Your task to perform on an android device: Is it going to rain tomorrow? Image 0: 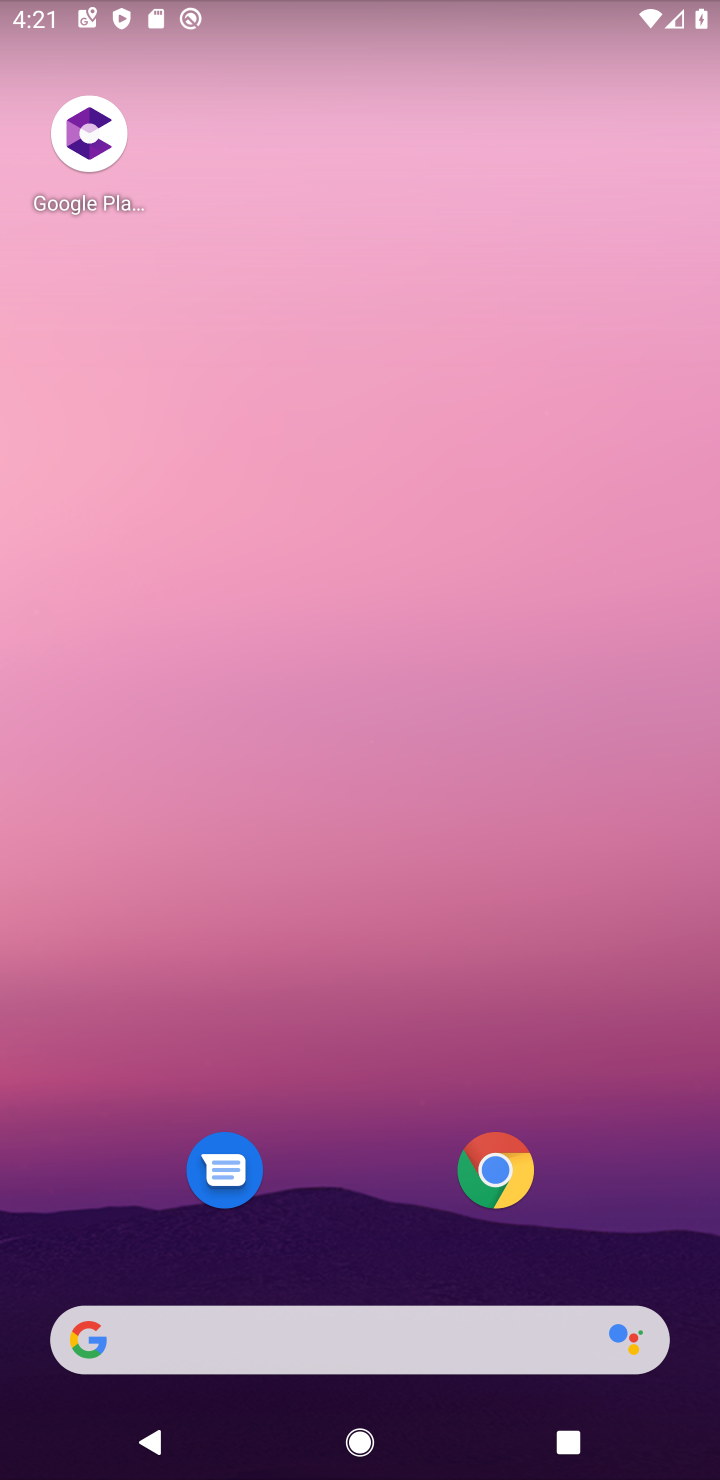
Step 0: drag from (284, 536) to (637, 1317)
Your task to perform on an android device: Is it going to rain tomorrow? Image 1: 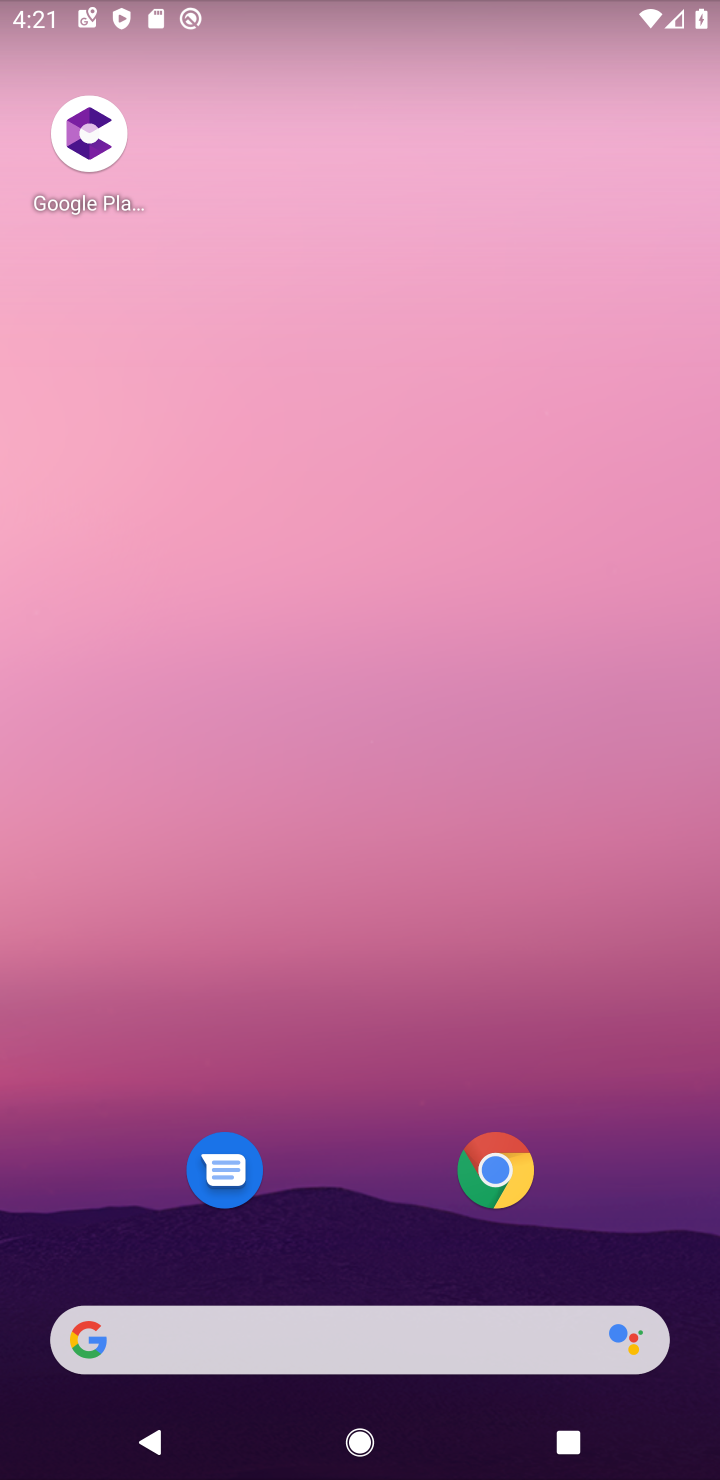
Step 1: click (363, 1339)
Your task to perform on an android device: Is it going to rain tomorrow? Image 2: 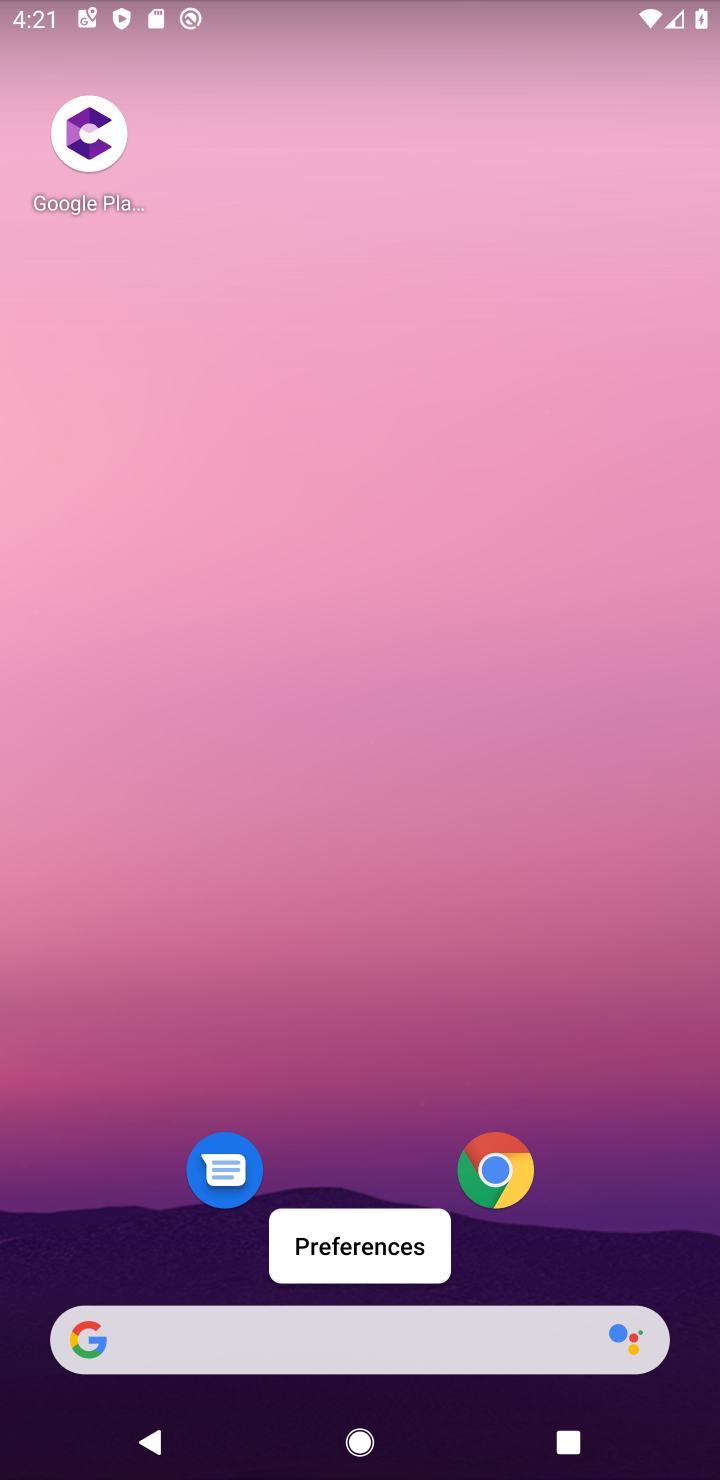
Step 2: click (301, 1376)
Your task to perform on an android device: Is it going to rain tomorrow? Image 3: 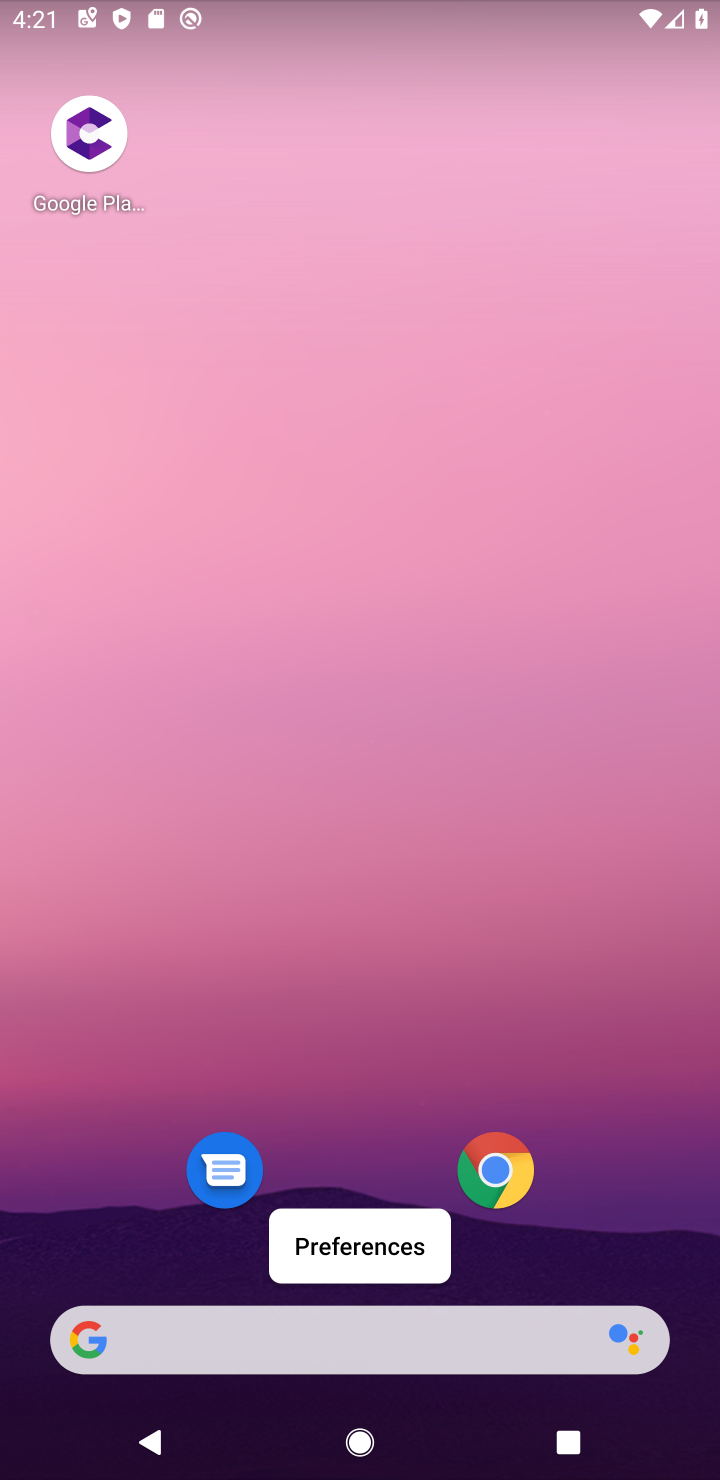
Step 3: click (297, 1345)
Your task to perform on an android device: Is it going to rain tomorrow? Image 4: 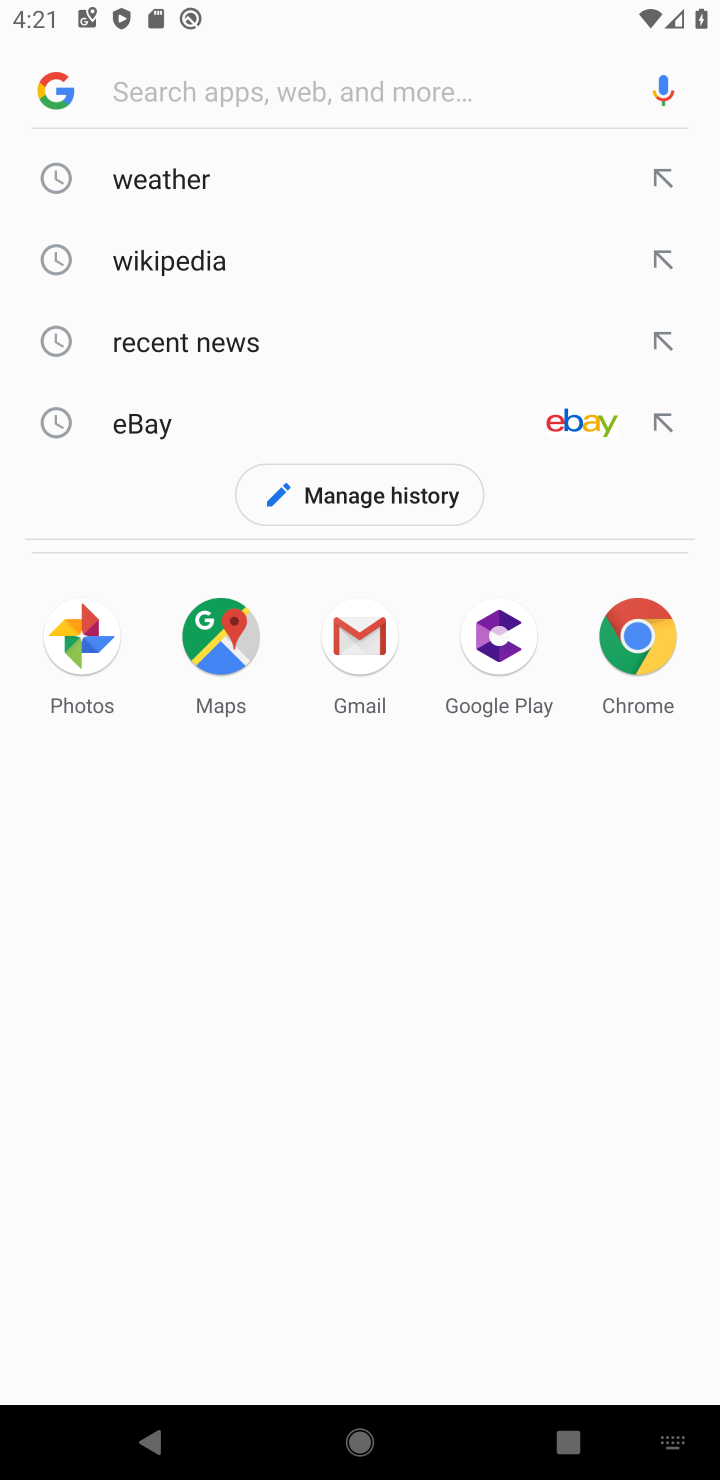
Step 4: click (225, 194)
Your task to perform on an android device: Is it going to rain tomorrow? Image 5: 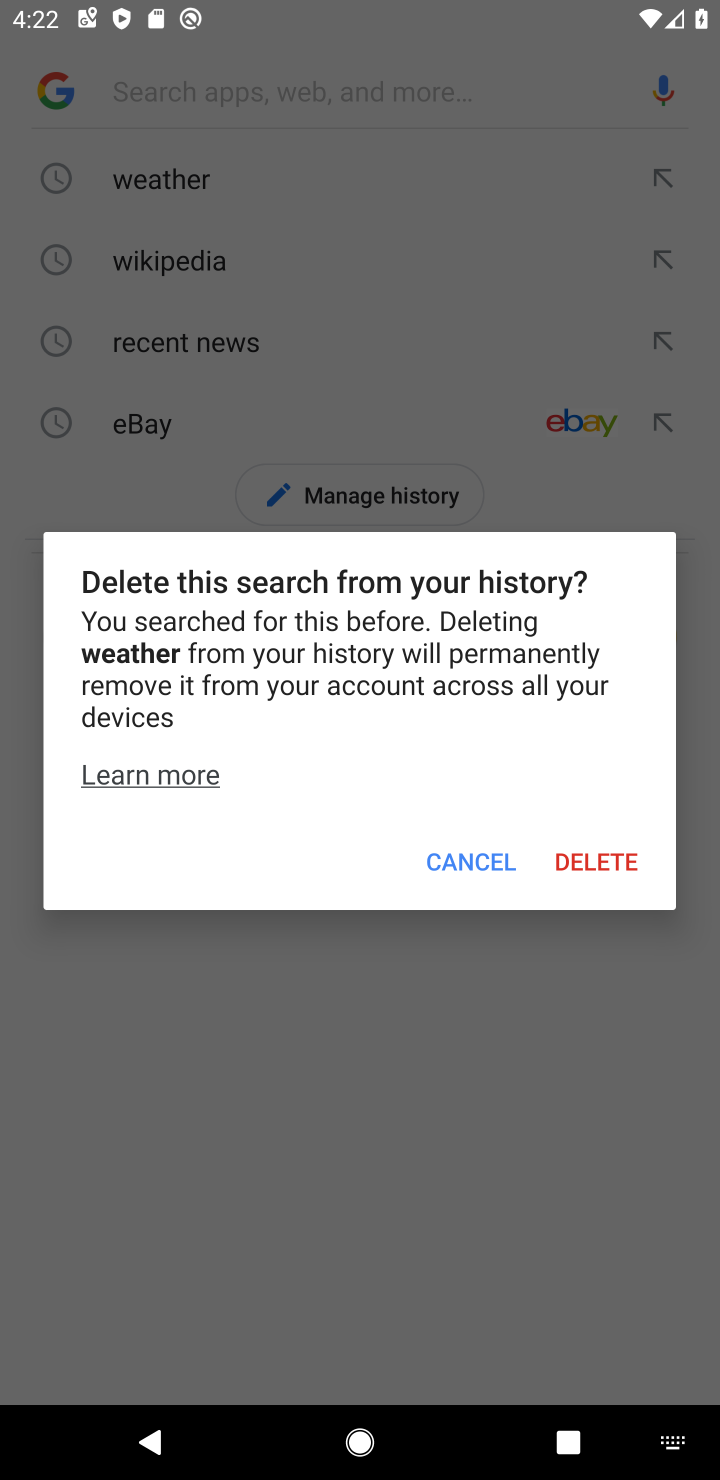
Step 5: click (495, 852)
Your task to perform on an android device: Is it going to rain tomorrow? Image 6: 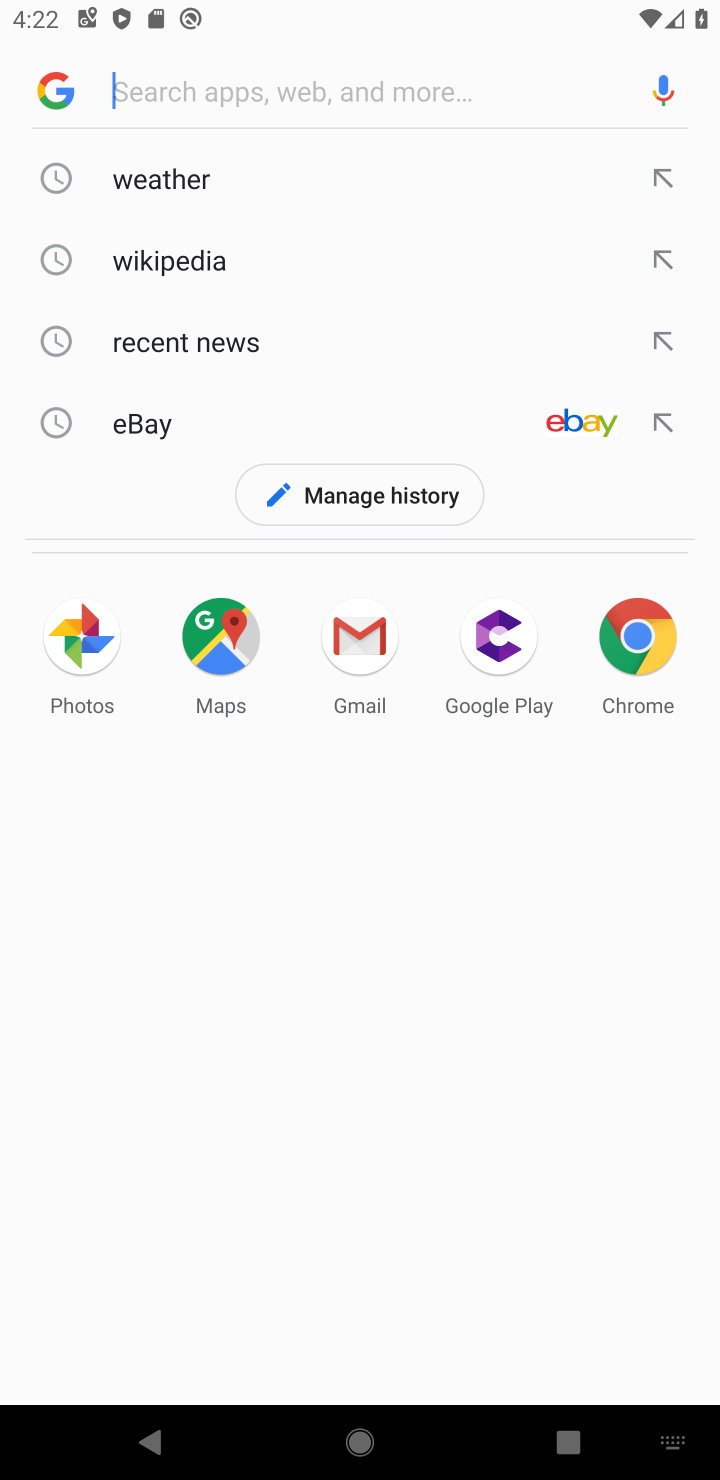
Step 6: click (186, 170)
Your task to perform on an android device: Is it going to rain tomorrow? Image 7: 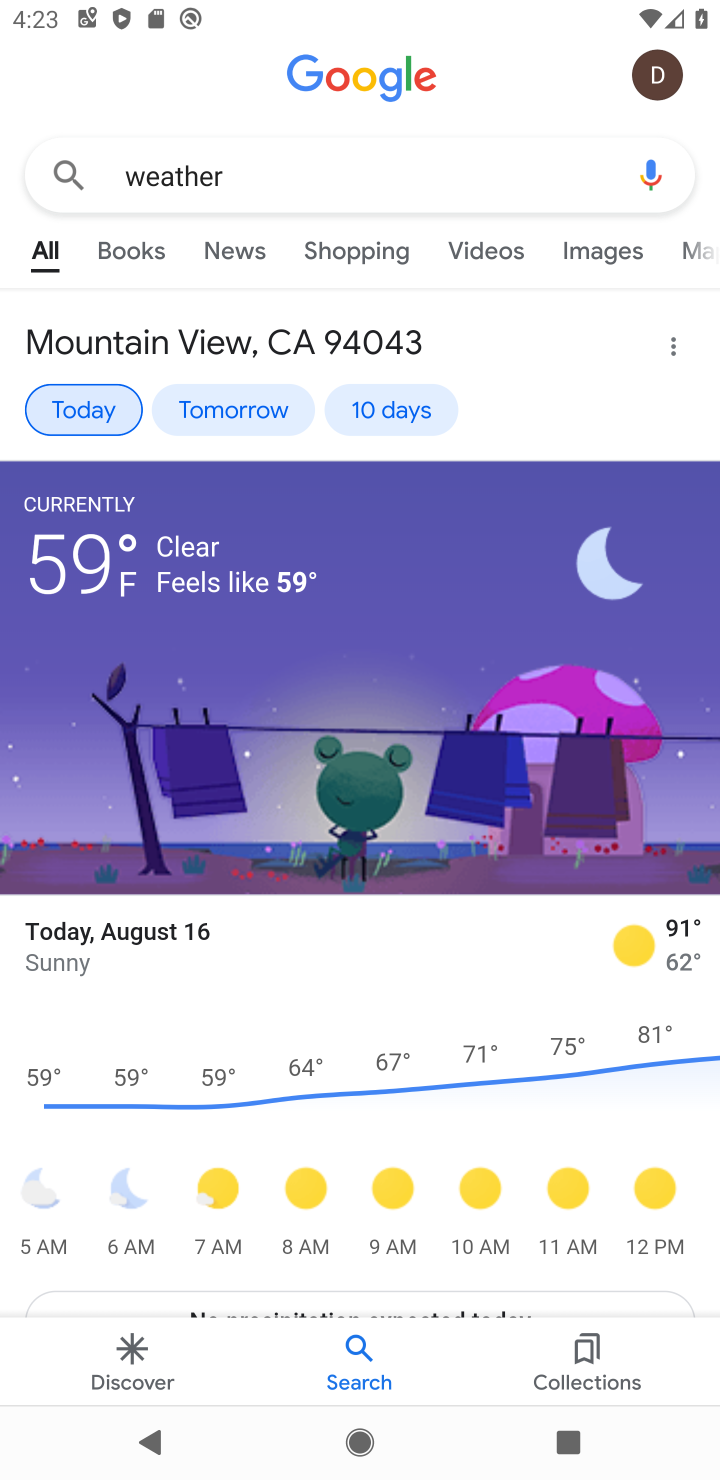
Step 7: click (230, 392)
Your task to perform on an android device: Is it going to rain tomorrow? Image 8: 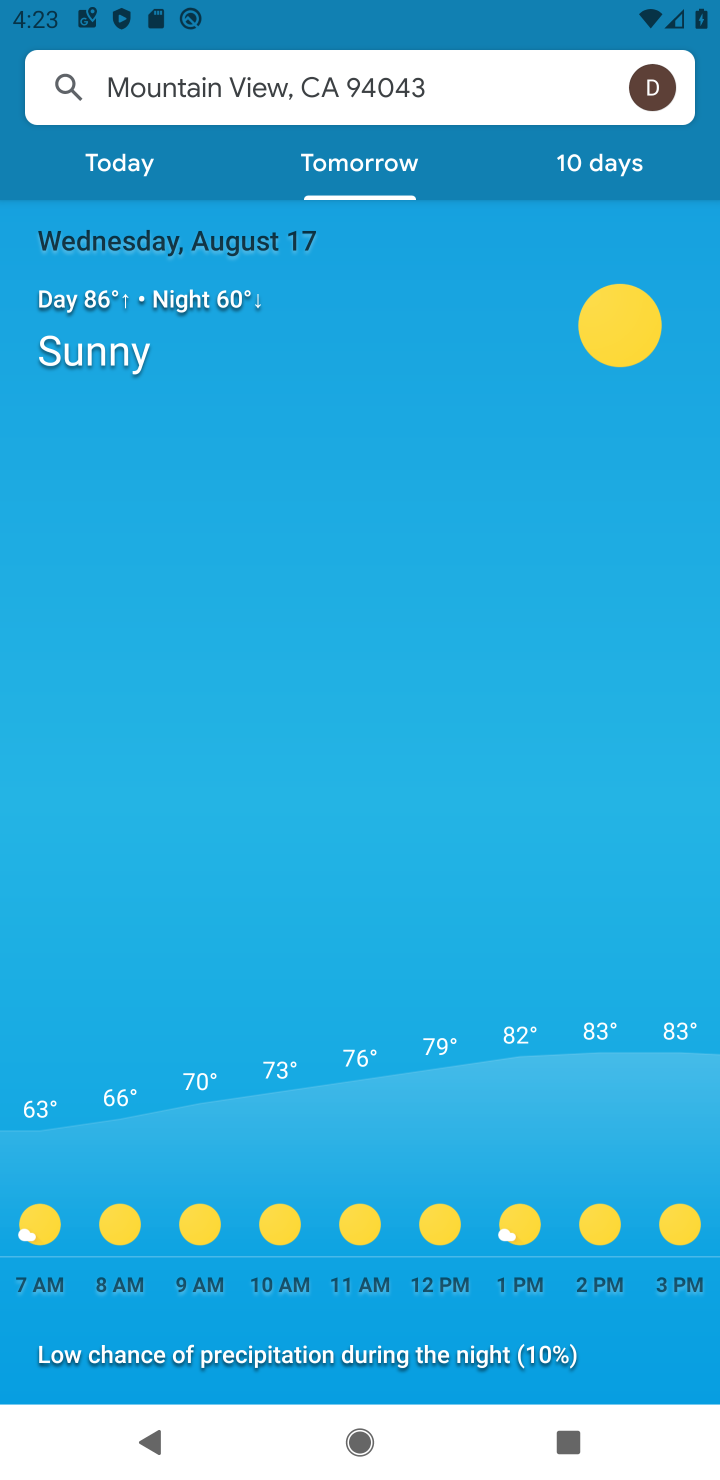
Step 8: task complete